Your task to perform on an android device: Add dell alienware to the cart on target.com Image 0: 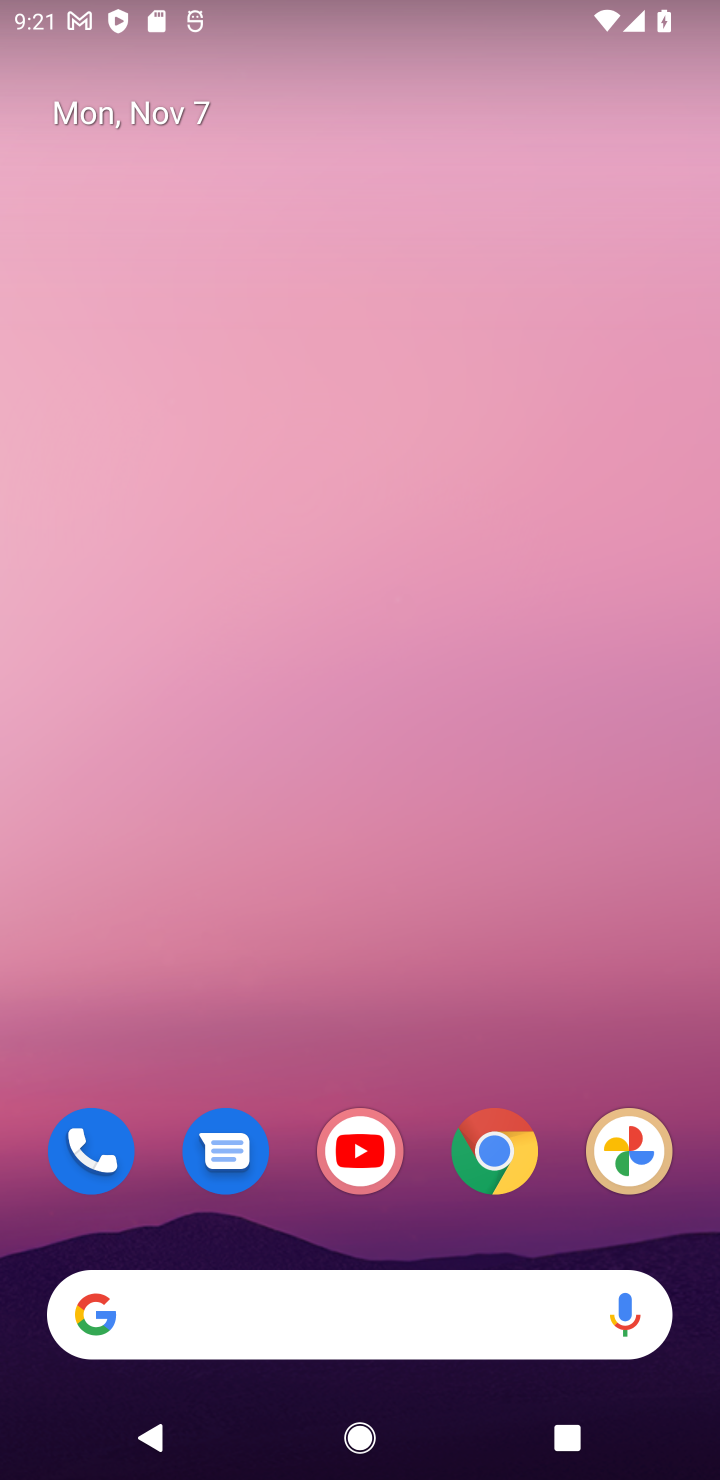
Step 0: press home button
Your task to perform on an android device: Add dell alienware to the cart on target.com Image 1: 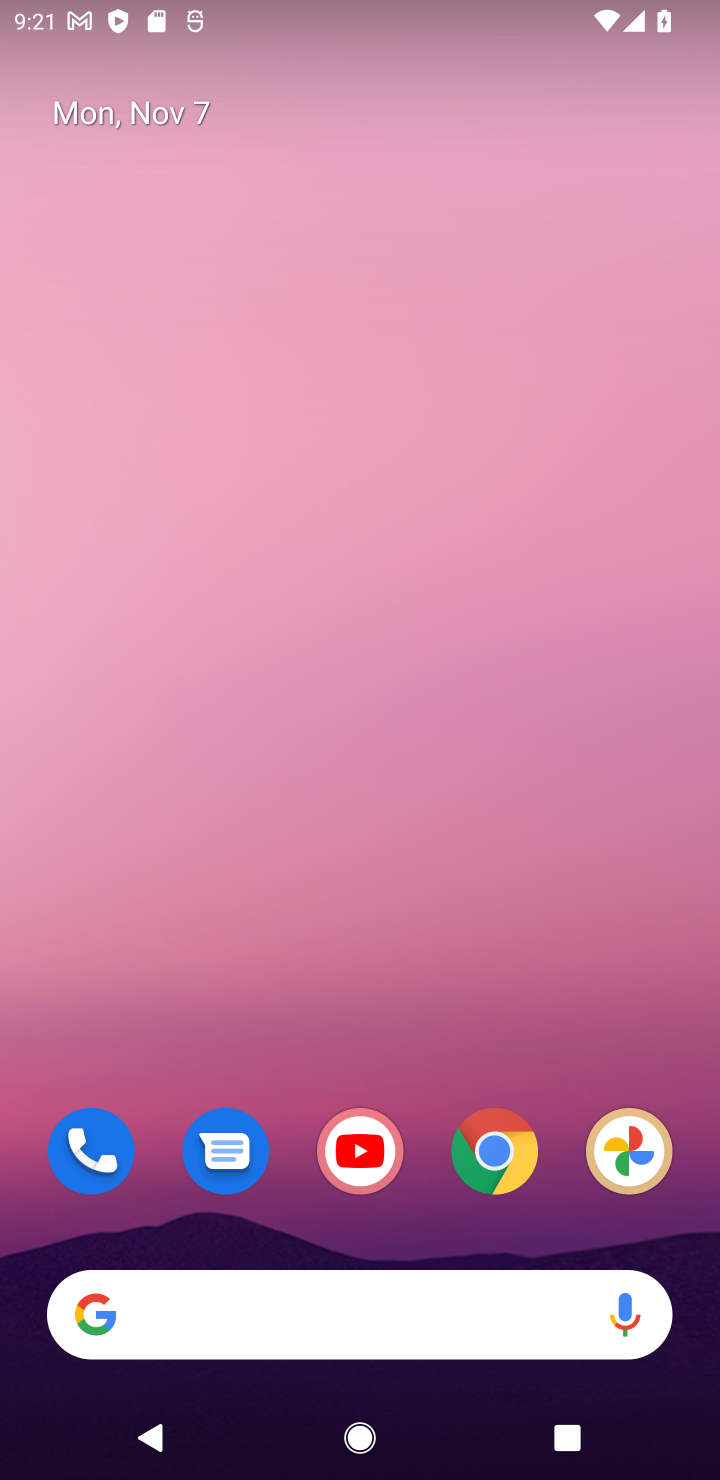
Step 1: click (494, 1158)
Your task to perform on an android device: Add dell alienware to the cart on target.com Image 2: 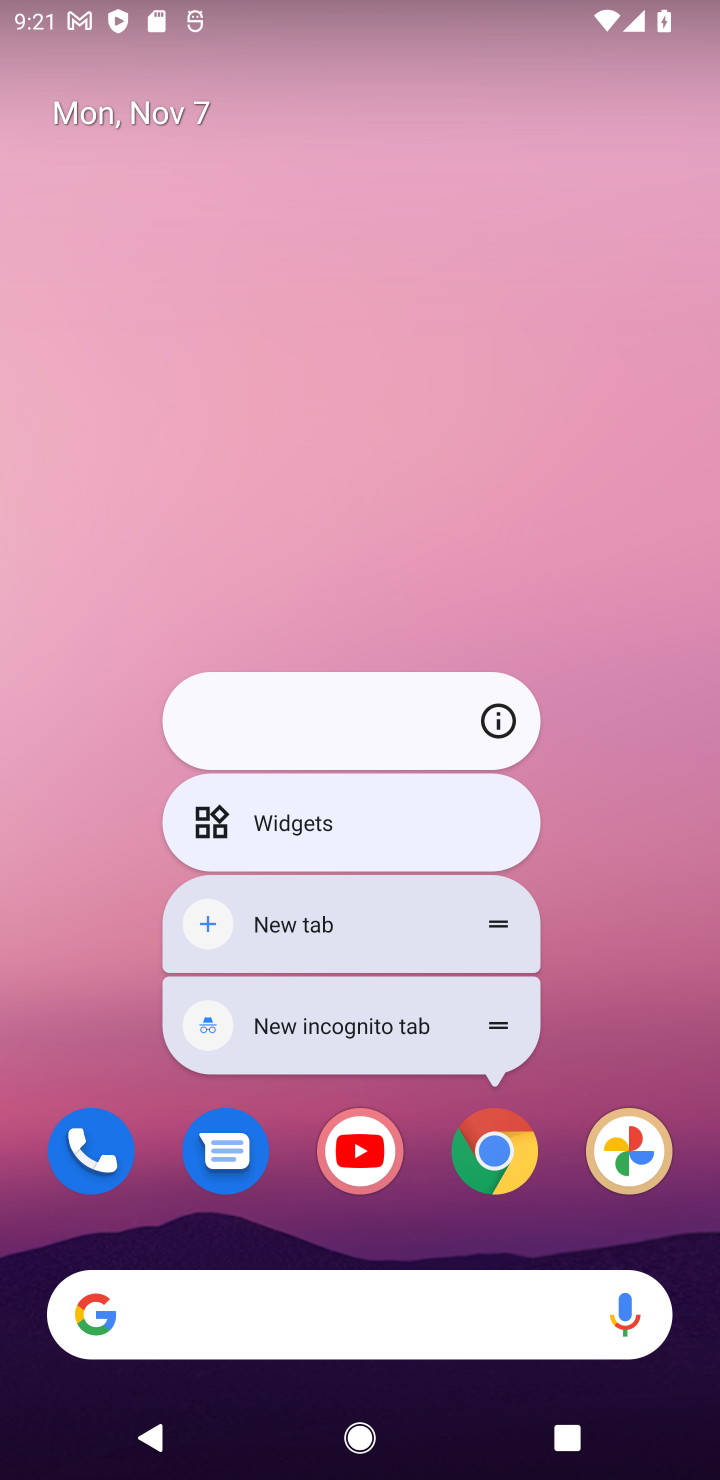
Step 2: click (494, 1158)
Your task to perform on an android device: Add dell alienware to the cart on target.com Image 3: 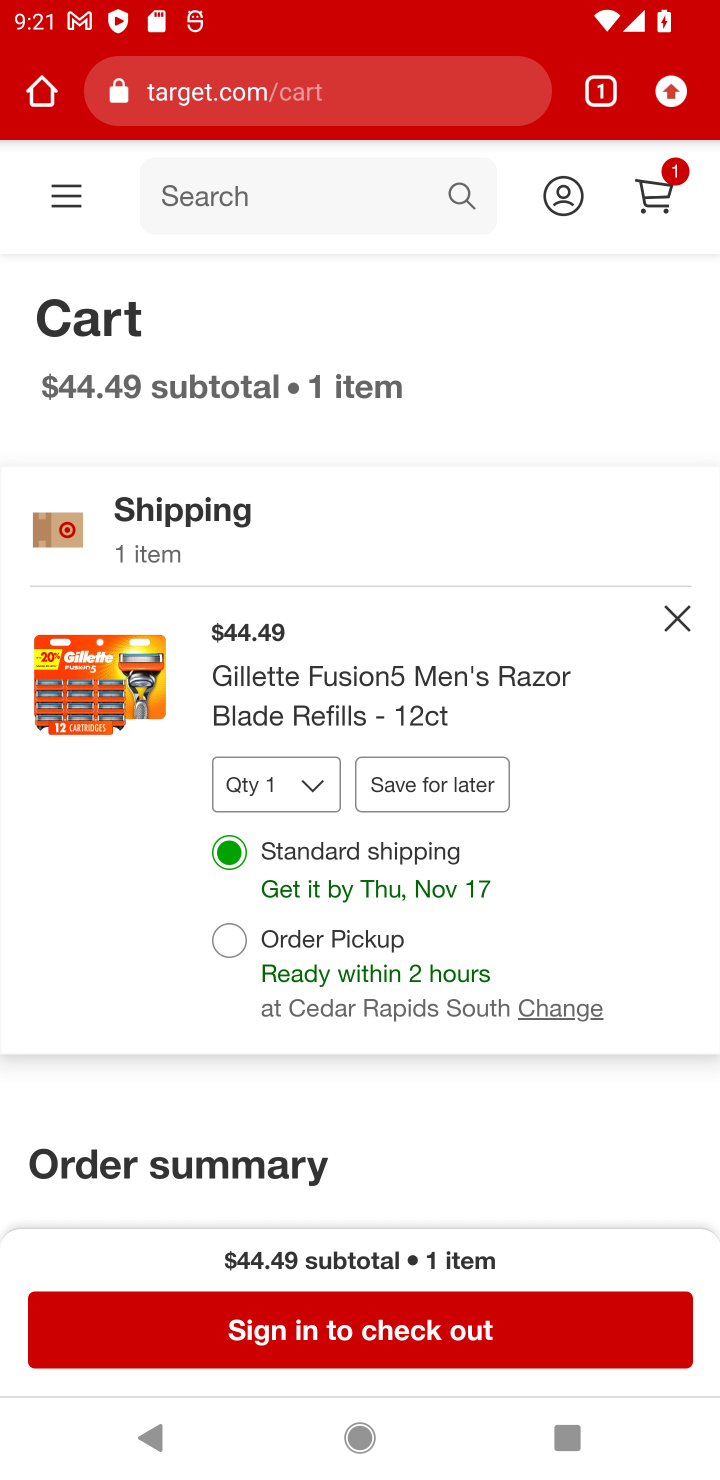
Step 3: click (375, 74)
Your task to perform on an android device: Add dell alienware to the cart on target.com Image 4: 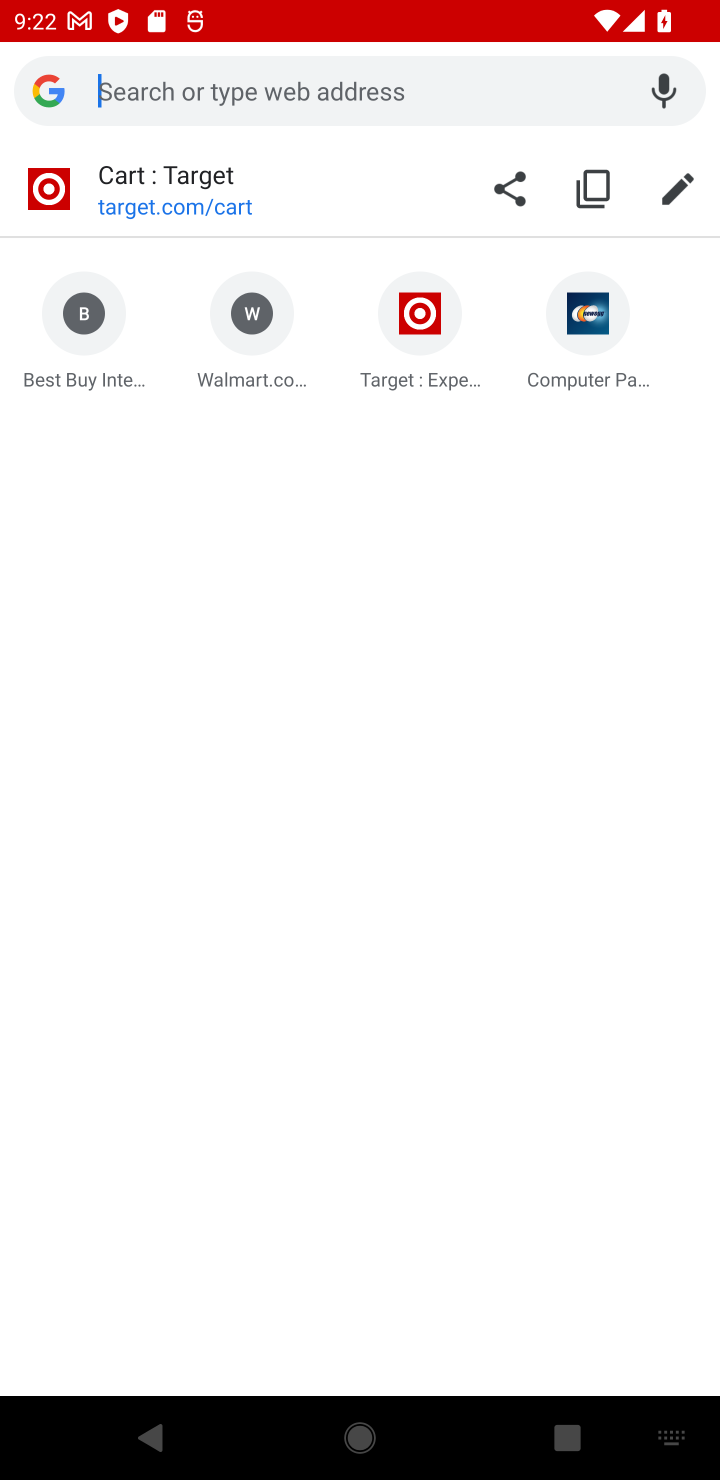
Step 4: click (415, 312)
Your task to perform on an android device: Add dell alienware to the cart on target.com Image 5: 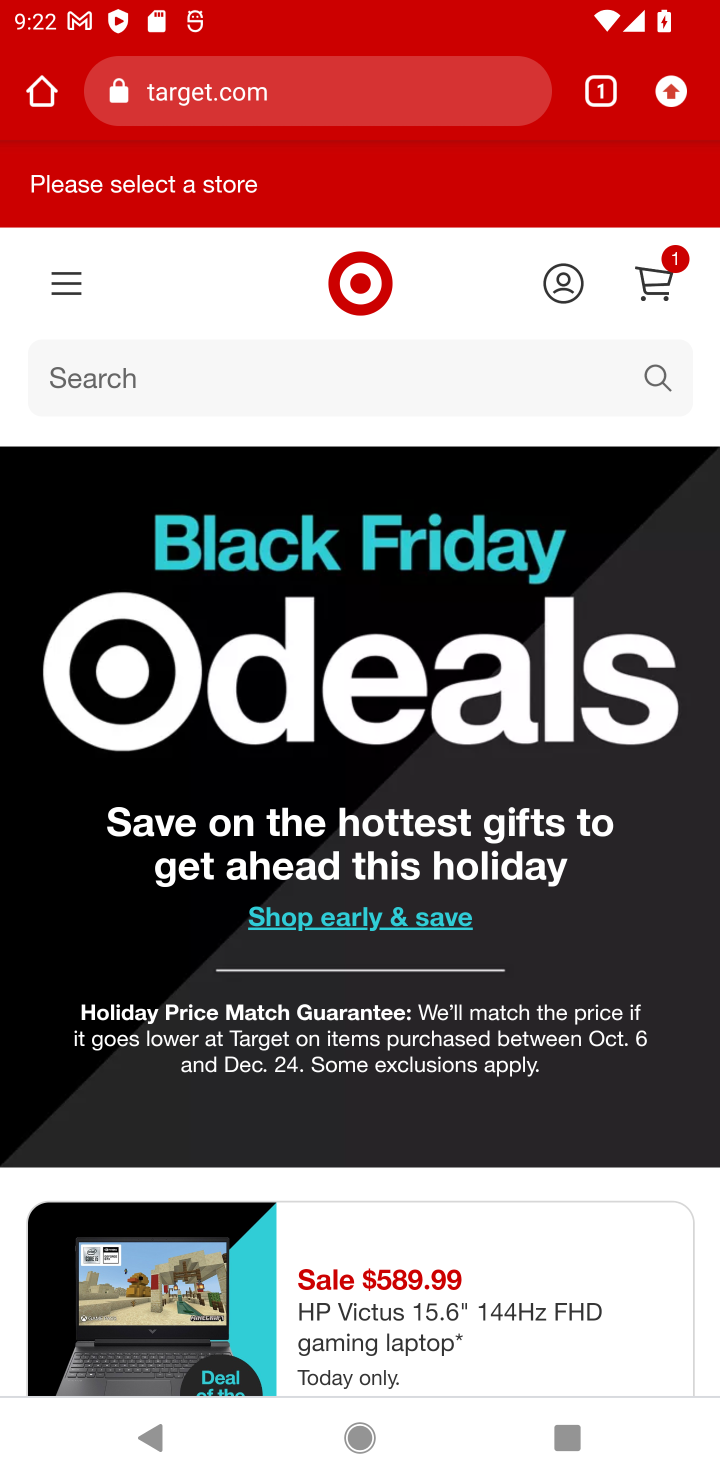
Step 5: click (344, 102)
Your task to perform on an android device: Add dell alienware to the cart on target.com Image 6: 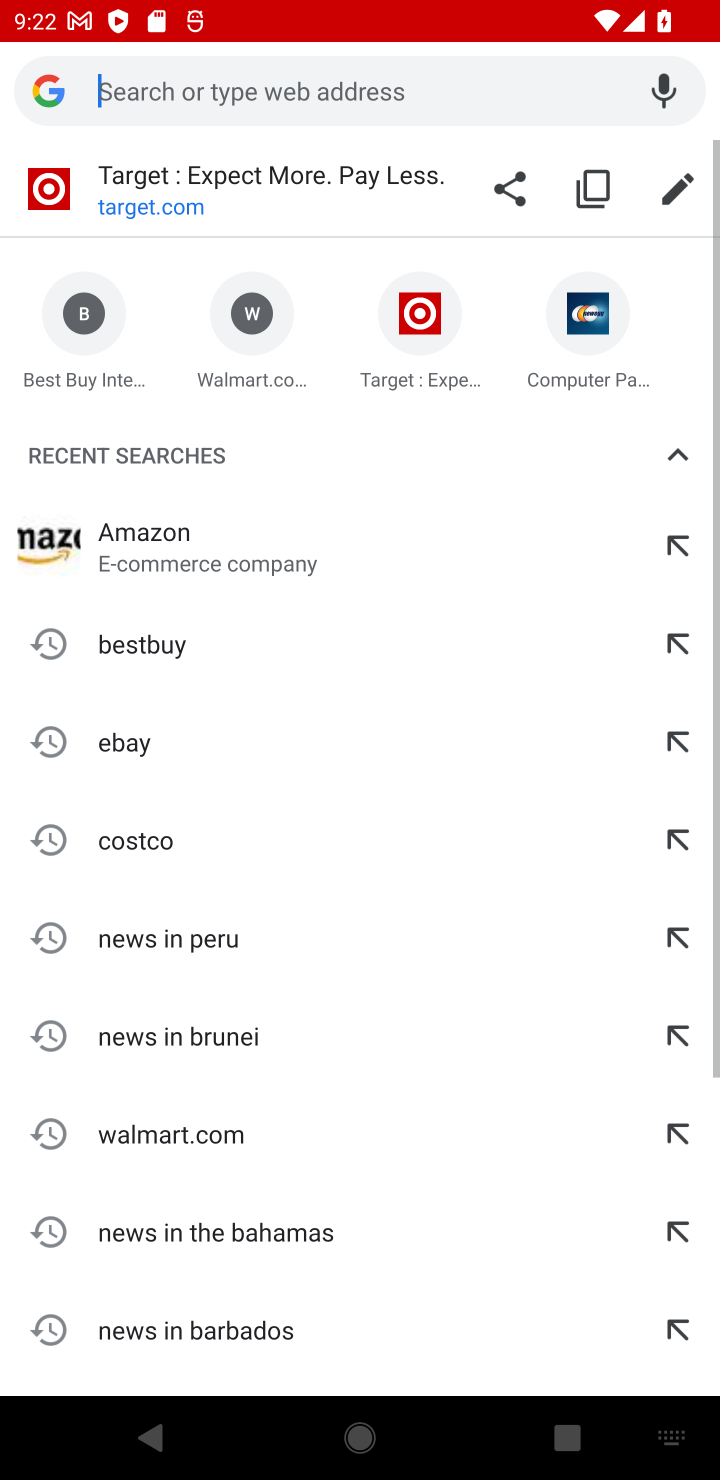
Step 6: click (418, 318)
Your task to perform on an android device: Add dell alienware to the cart on target.com Image 7: 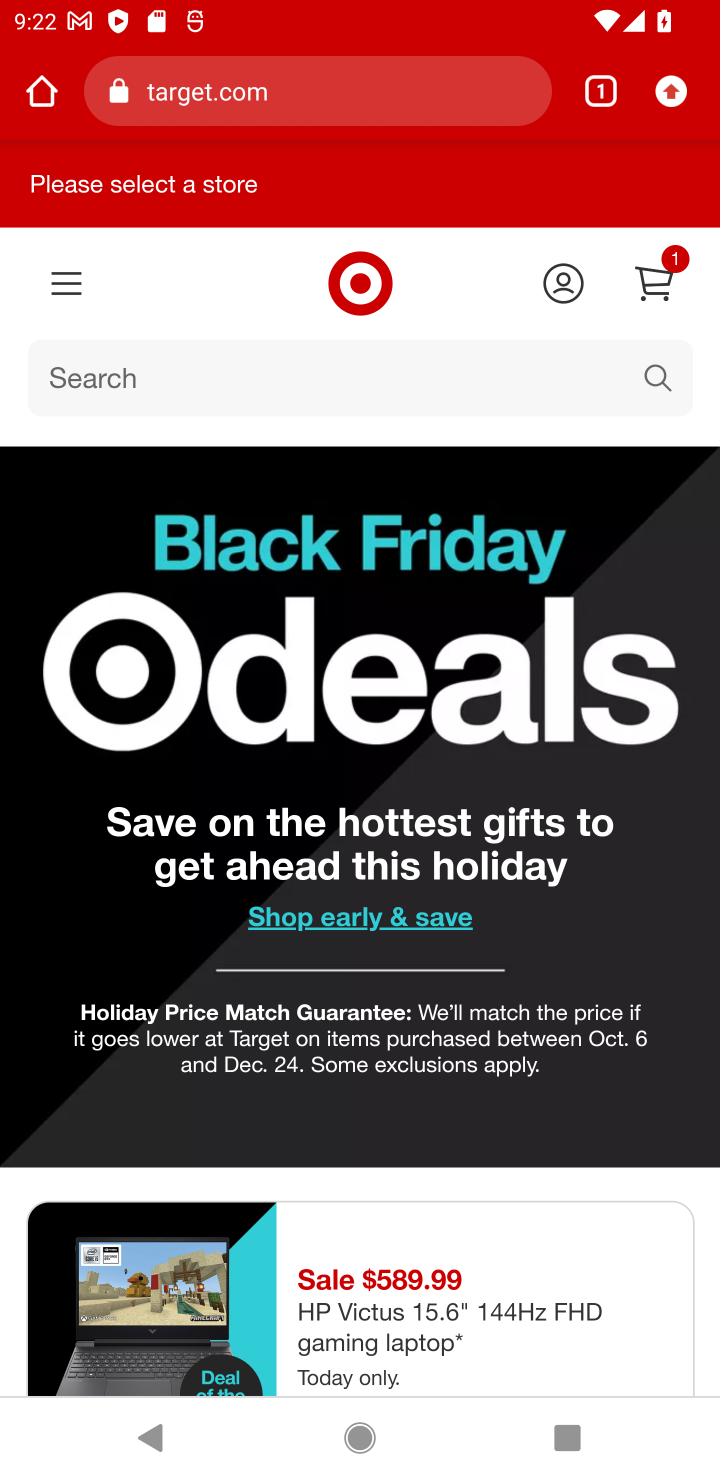
Step 7: type "dell alienware "
Your task to perform on an android device: Add dell alienware to the cart on target.com Image 8: 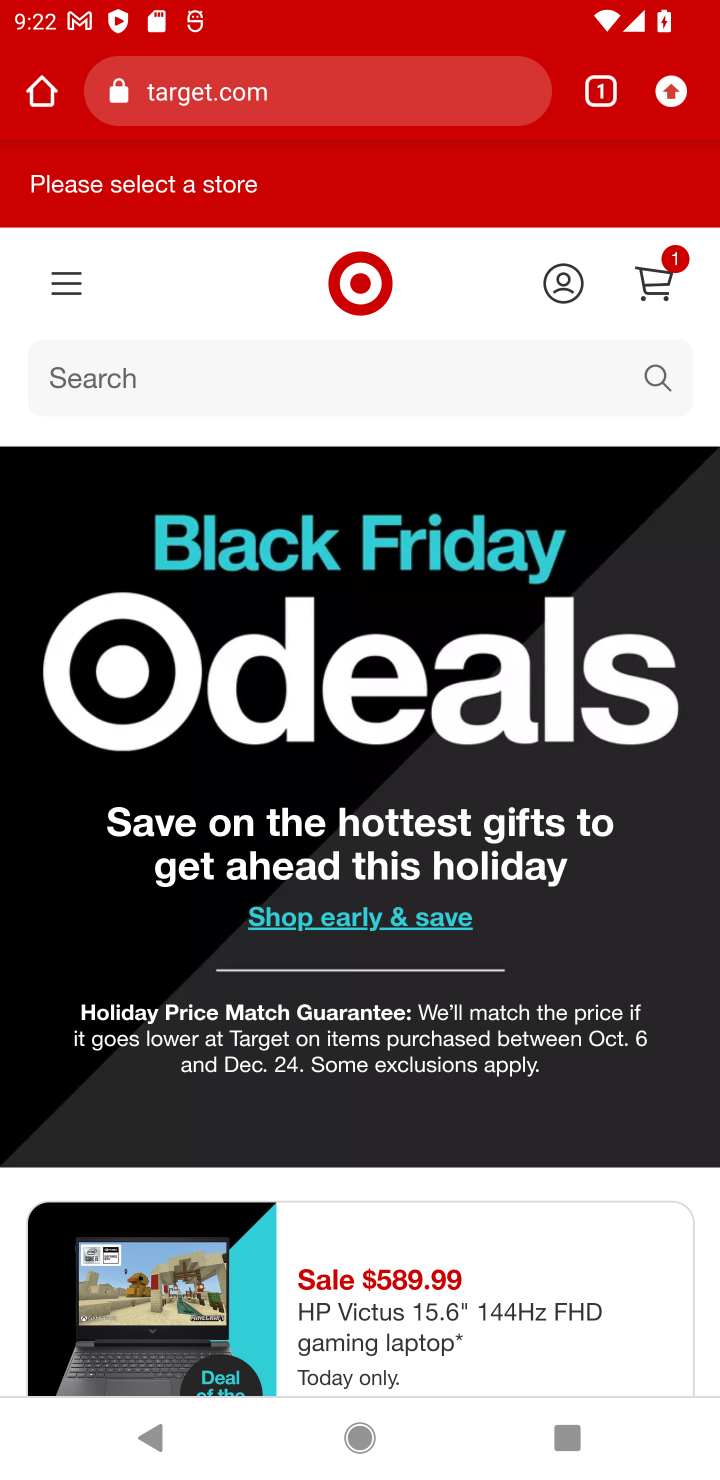
Step 8: press enter
Your task to perform on an android device: Add dell alienware to the cart on target.com Image 9: 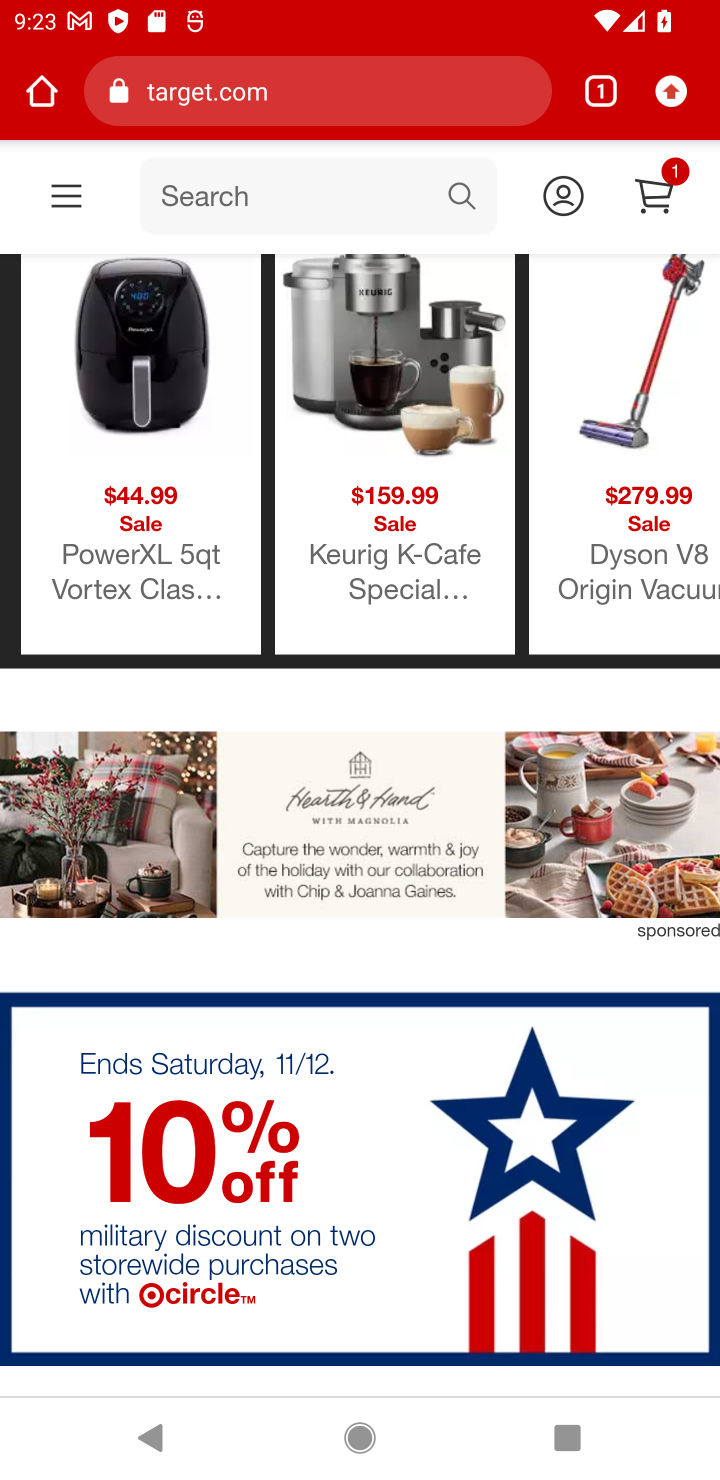
Step 9: drag from (390, 886) to (691, 207)
Your task to perform on an android device: Add dell alienware to the cart on target.com Image 10: 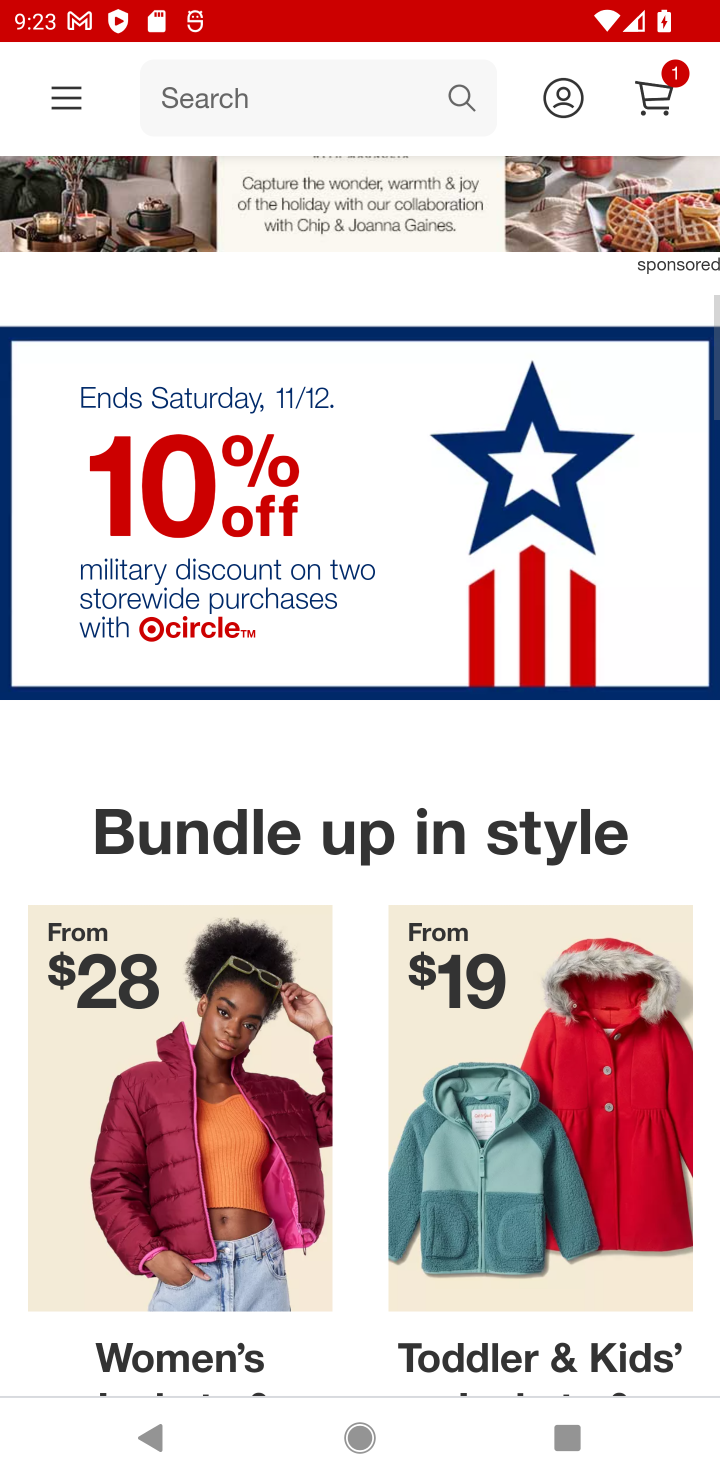
Step 10: drag from (402, 1023) to (622, 398)
Your task to perform on an android device: Add dell alienware to the cart on target.com Image 11: 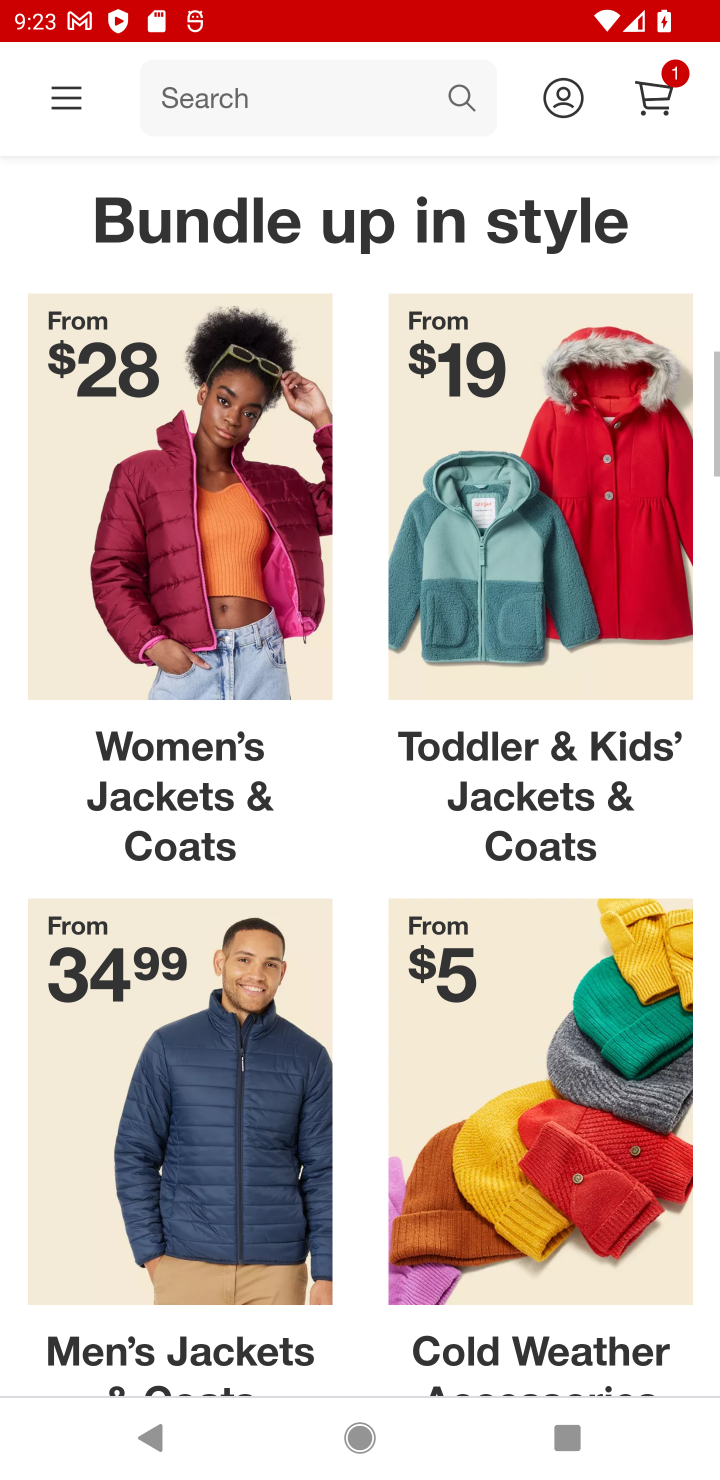
Step 11: drag from (494, 650) to (447, 1072)
Your task to perform on an android device: Add dell alienware to the cart on target.com Image 12: 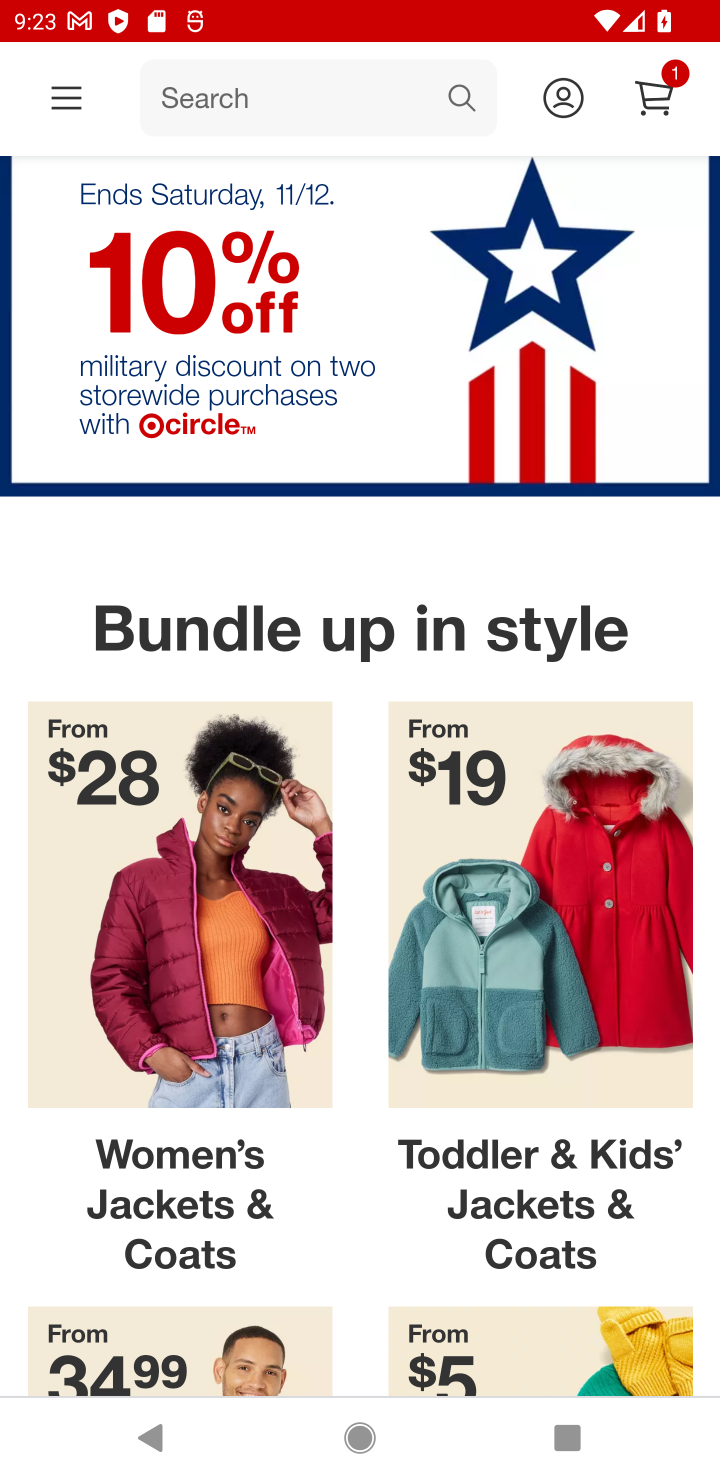
Step 12: drag from (405, 233) to (341, 1221)
Your task to perform on an android device: Add dell alienware to the cart on target.com Image 13: 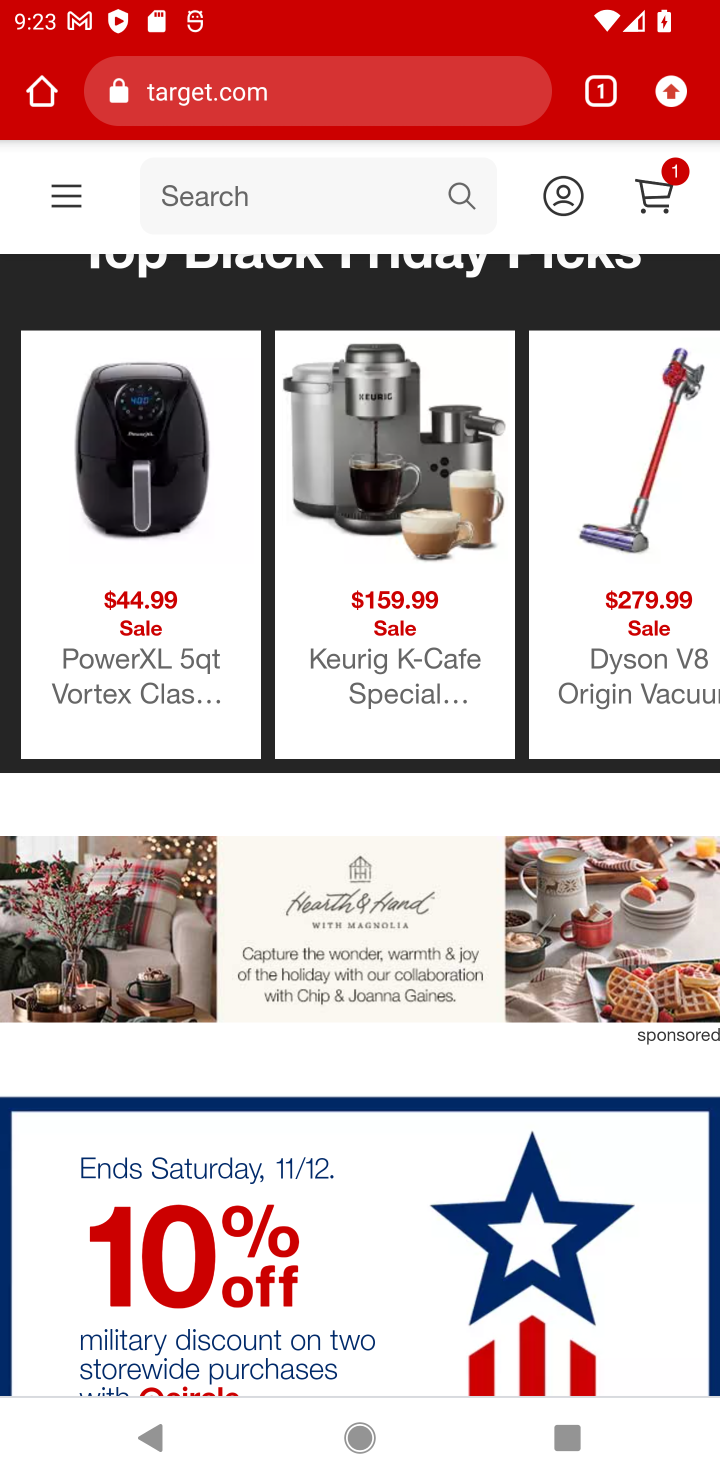
Step 13: click (293, 183)
Your task to perform on an android device: Add dell alienware to the cart on target.com Image 14: 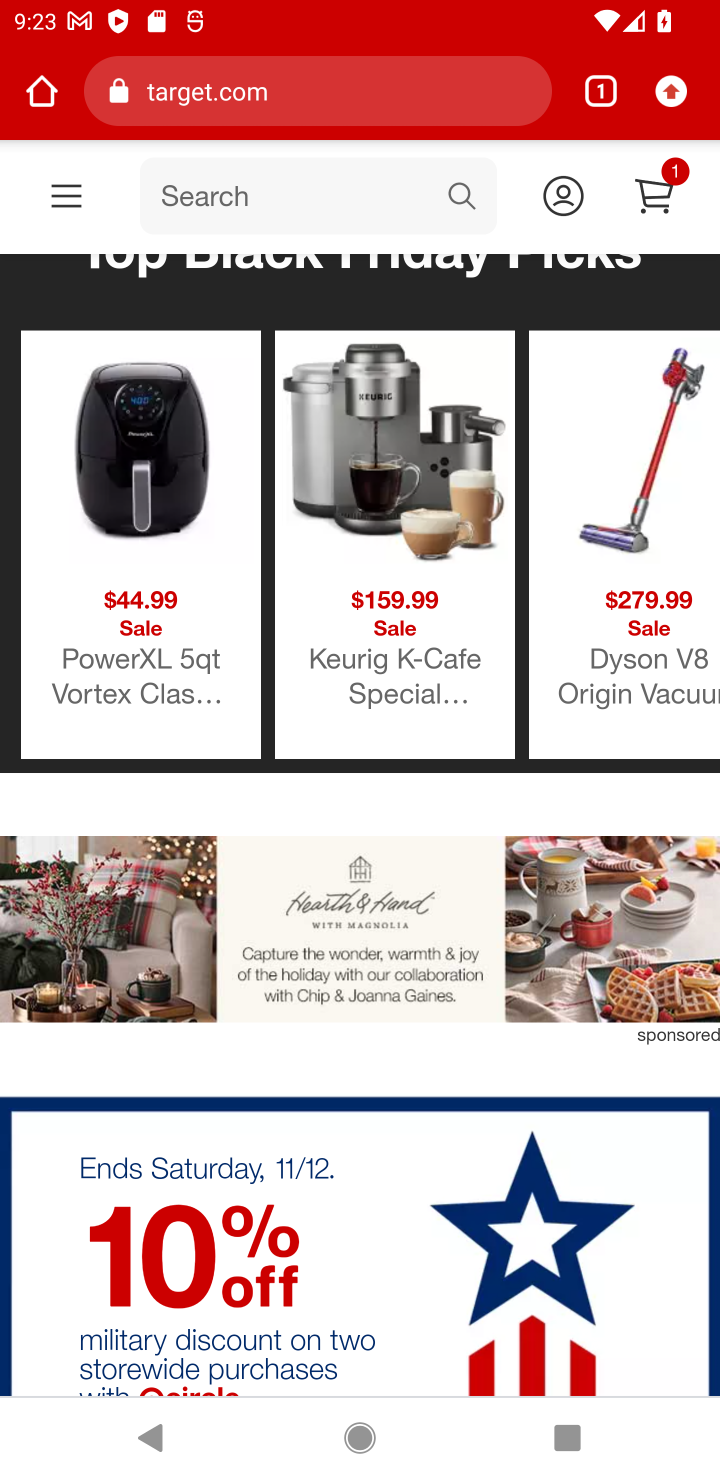
Step 14: click (198, 204)
Your task to perform on an android device: Add dell alienware to the cart on target.com Image 15: 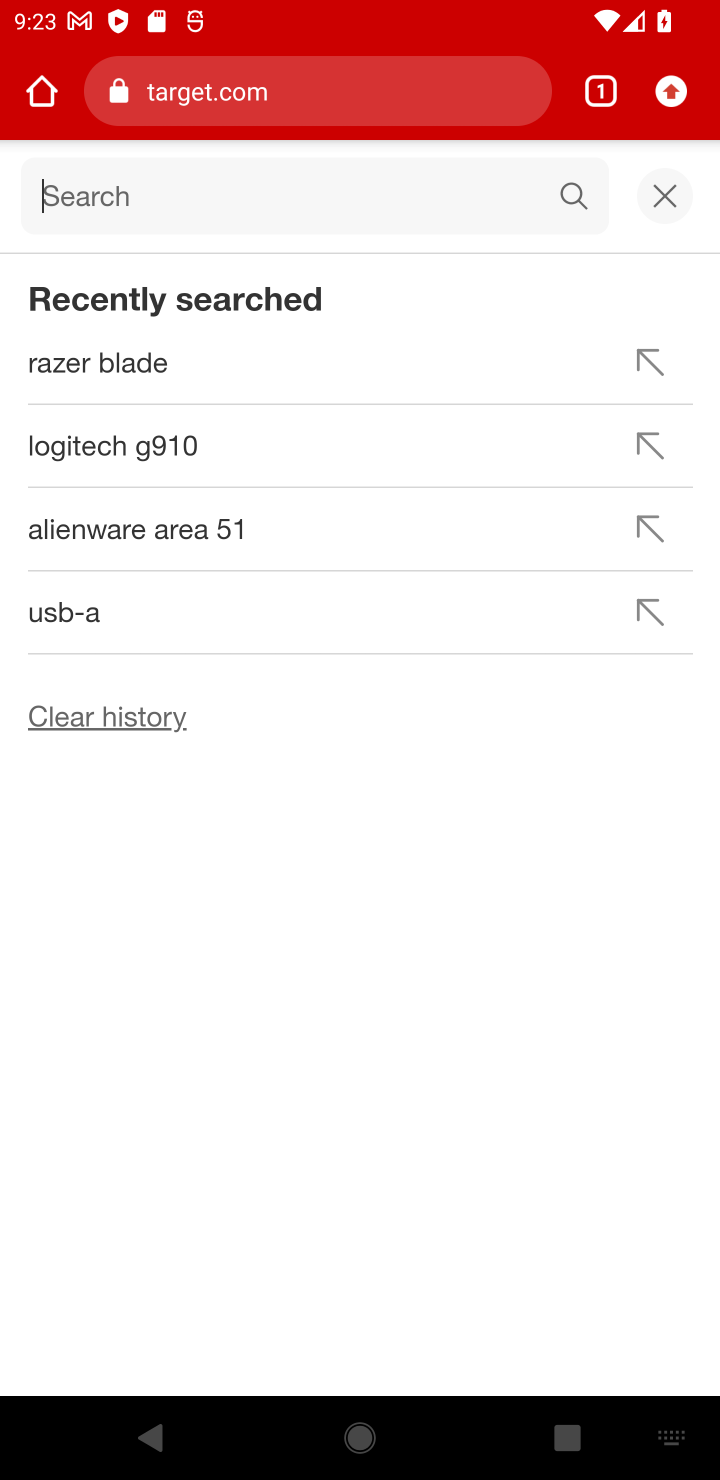
Step 15: type "dell alienware "
Your task to perform on an android device: Add dell alienware to the cart on target.com Image 16: 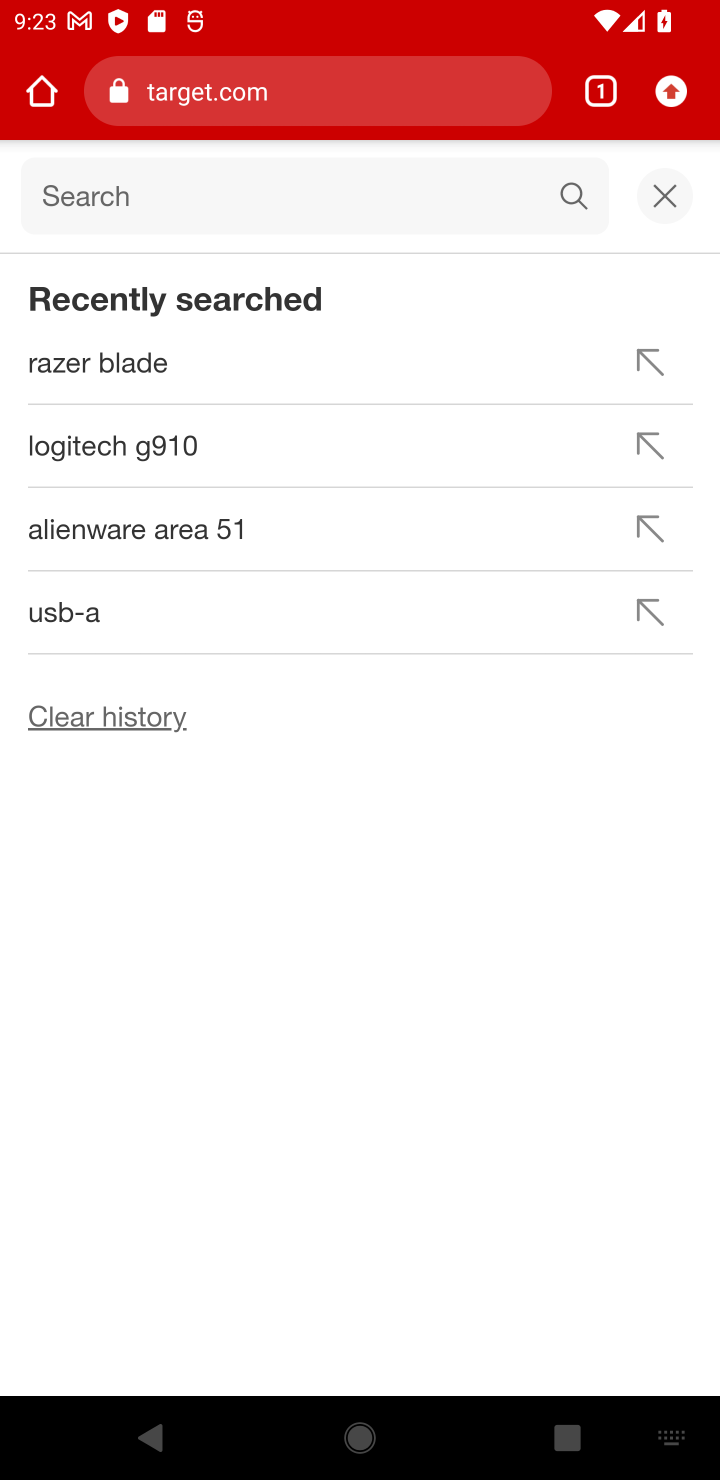
Step 16: press enter
Your task to perform on an android device: Add dell alienware to the cart on target.com Image 17: 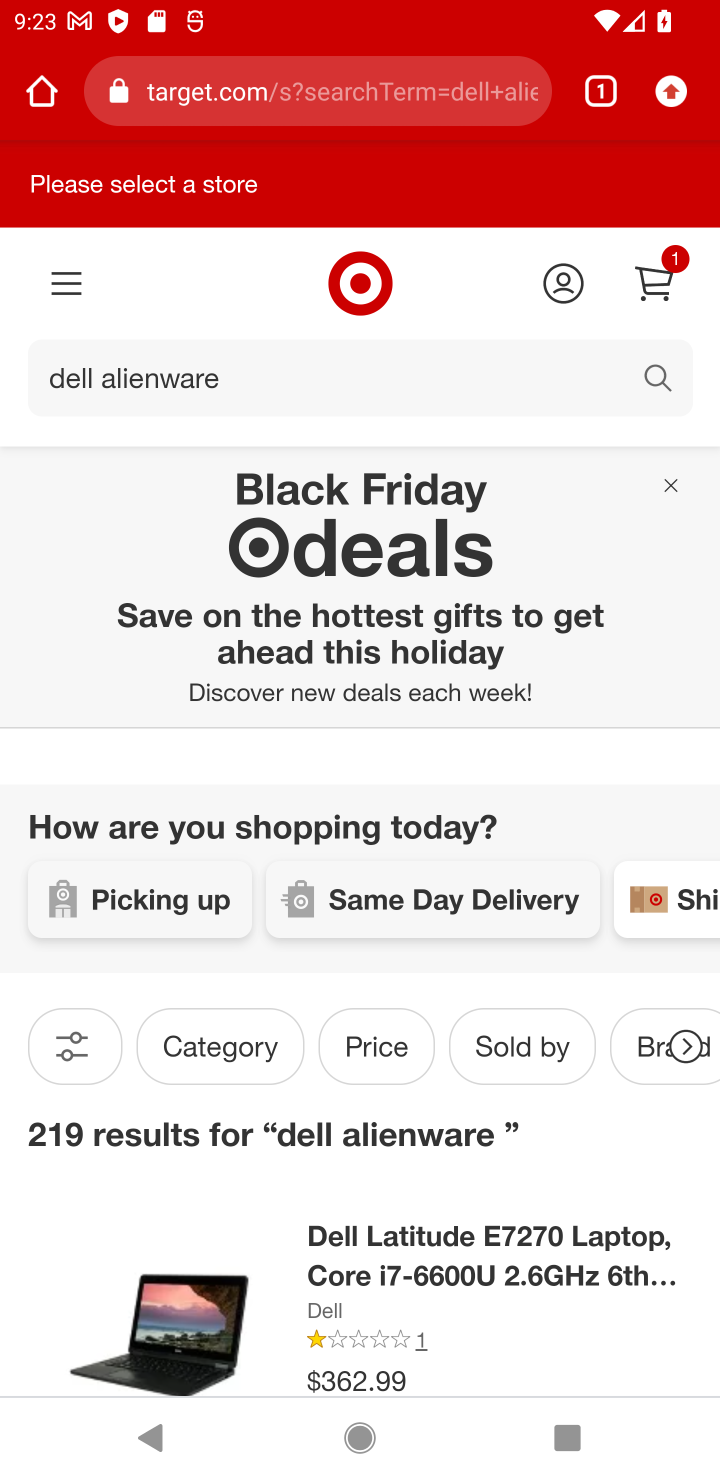
Step 17: task complete